Your task to perform on an android device: open app "Spotify: Music and Podcasts" Image 0: 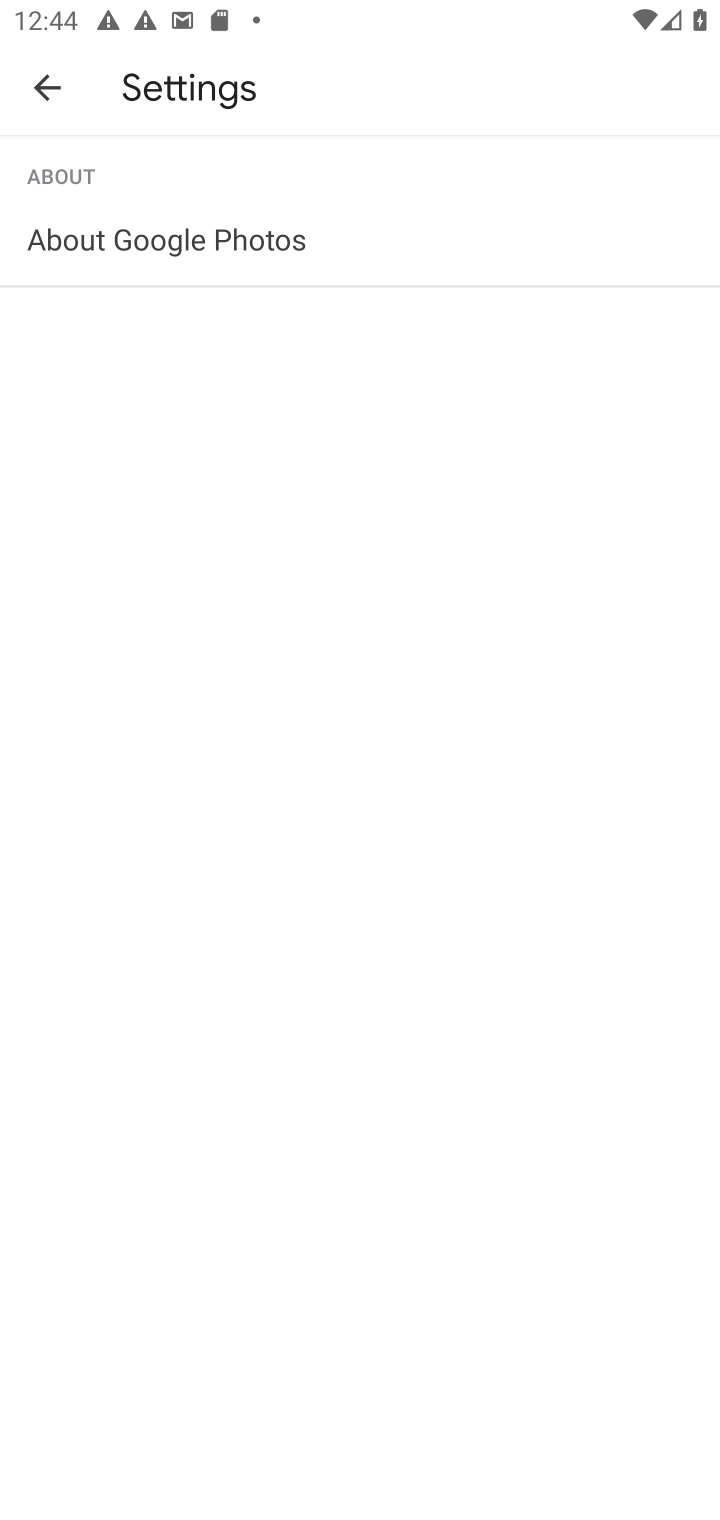
Step 0: press home button
Your task to perform on an android device: open app "Spotify: Music and Podcasts" Image 1: 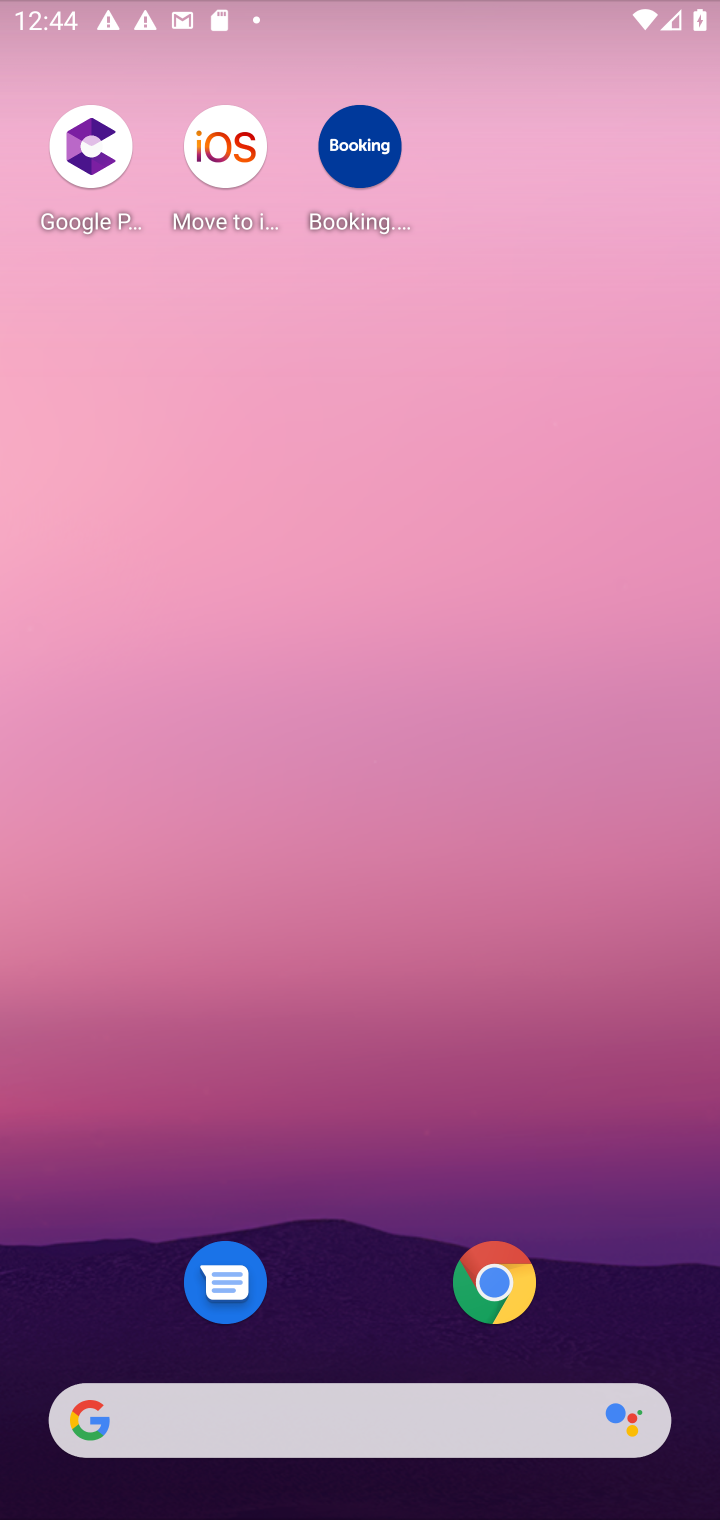
Step 1: drag from (409, 1327) to (356, 365)
Your task to perform on an android device: open app "Spotify: Music and Podcasts" Image 2: 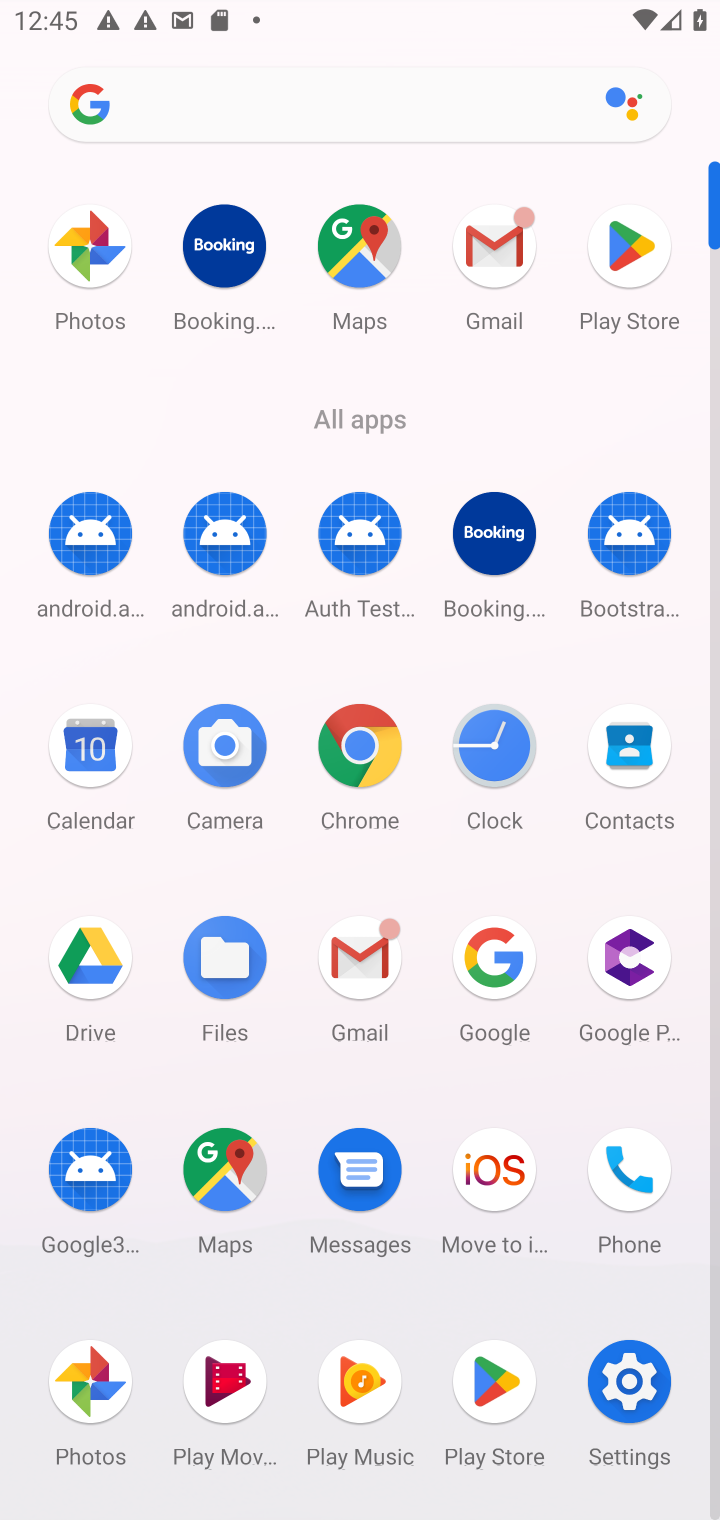
Step 2: click (637, 255)
Your task to perform on an android device: open app "Spotify: Music and Podcasts" Image 3: 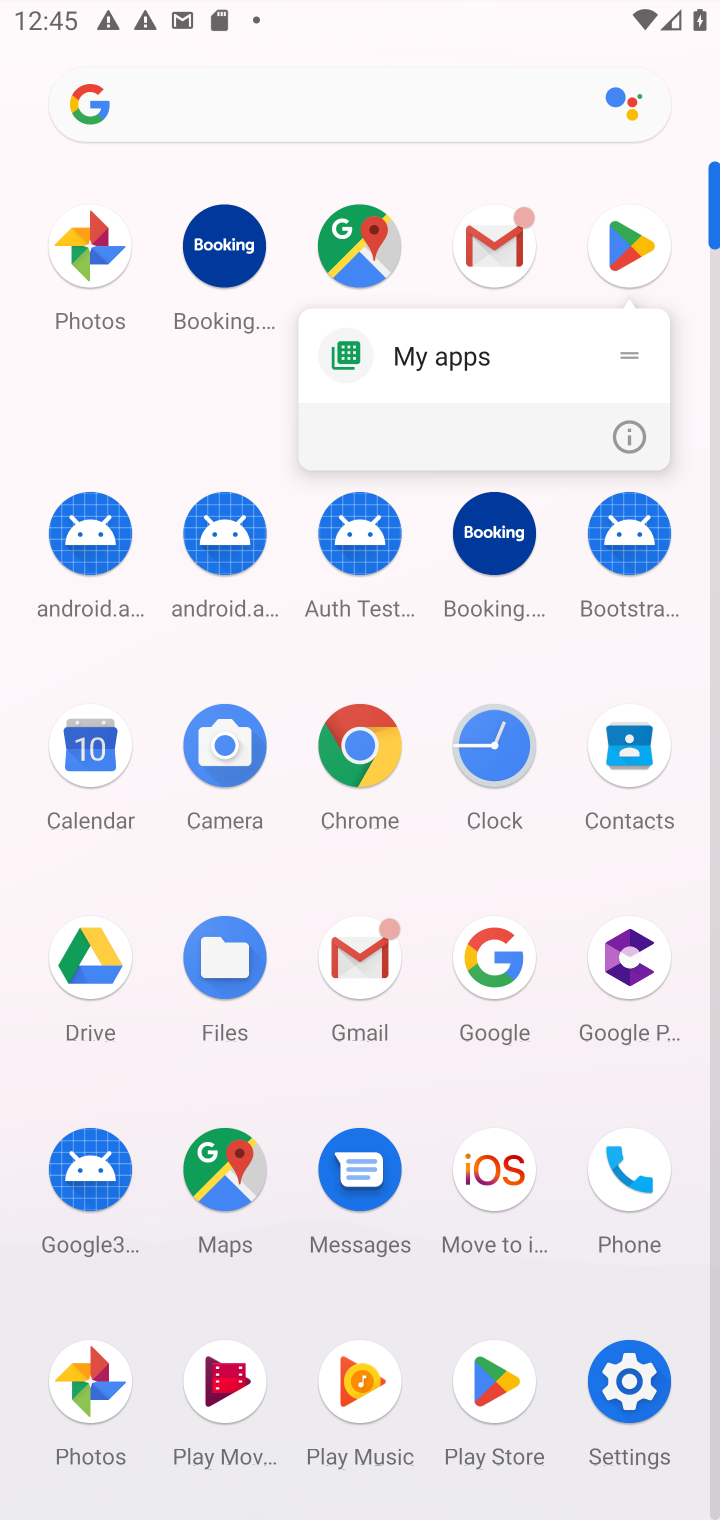
Step 3: click (637, 255)
Your task to perform on an android device: open app "Spotify: Music and Podcasts" Image 4: 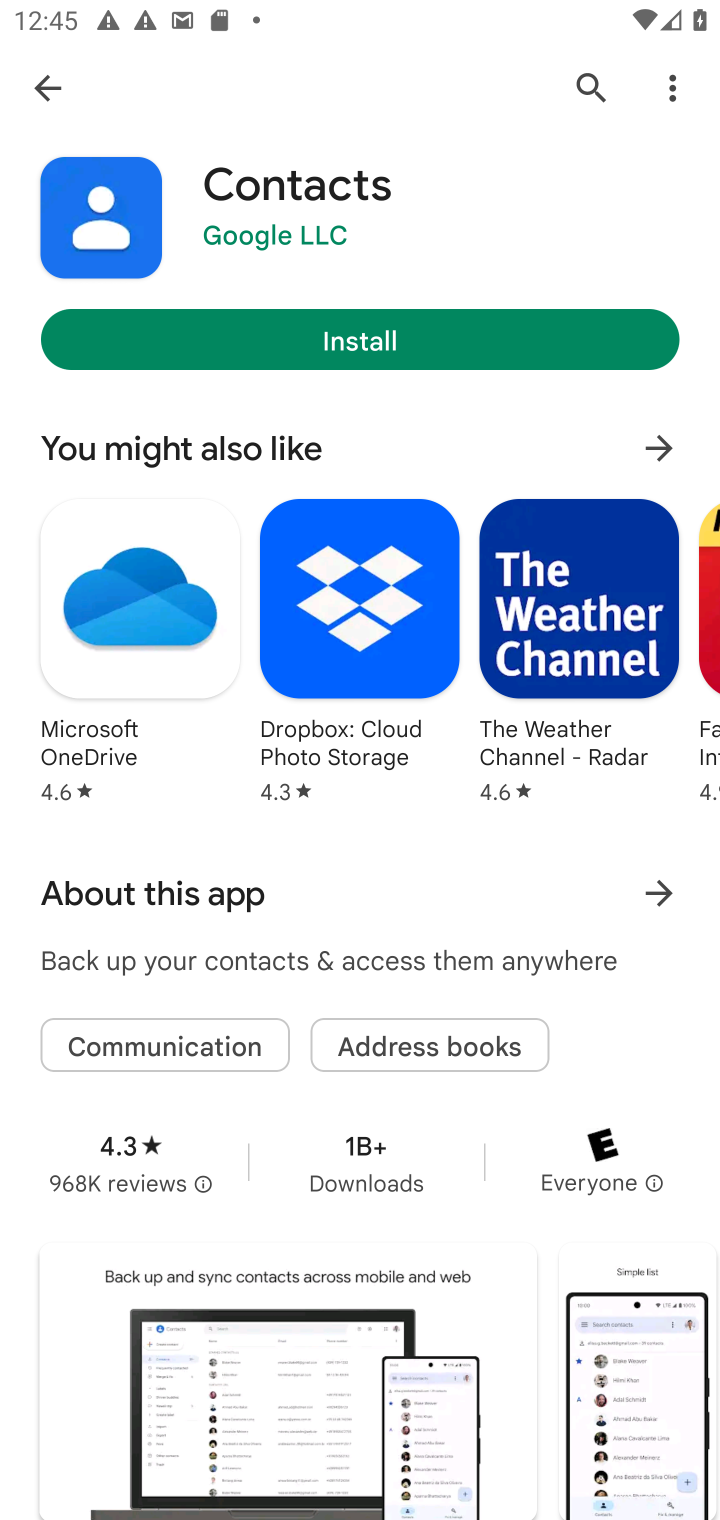
Step 4: click (22, 81)
Your task to perform on an android device: open app "Spotify: Music and Podcasts" Image 5: 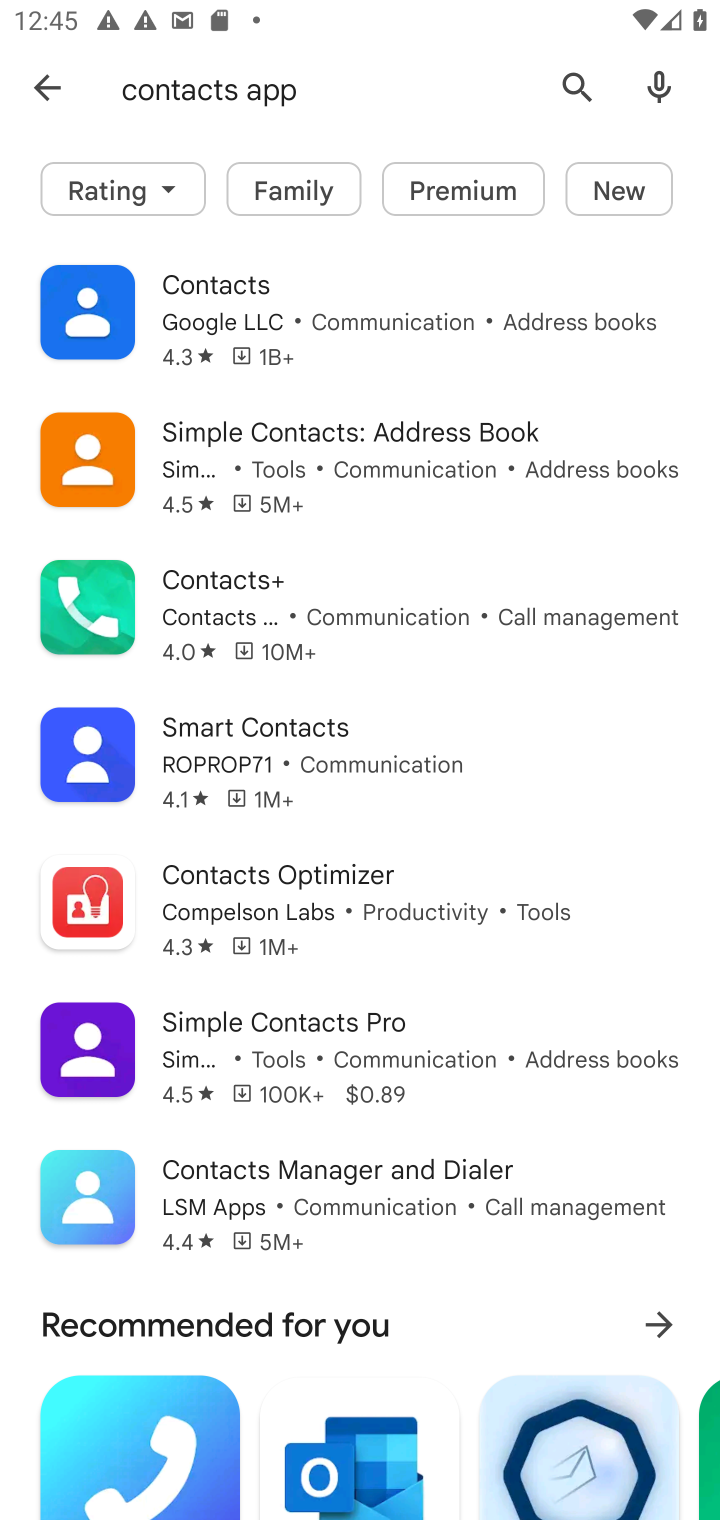
Step 5: click (65, 97)
Your task to perform on an android device: open app "Spotify: Music and Podcasts" Image 6: 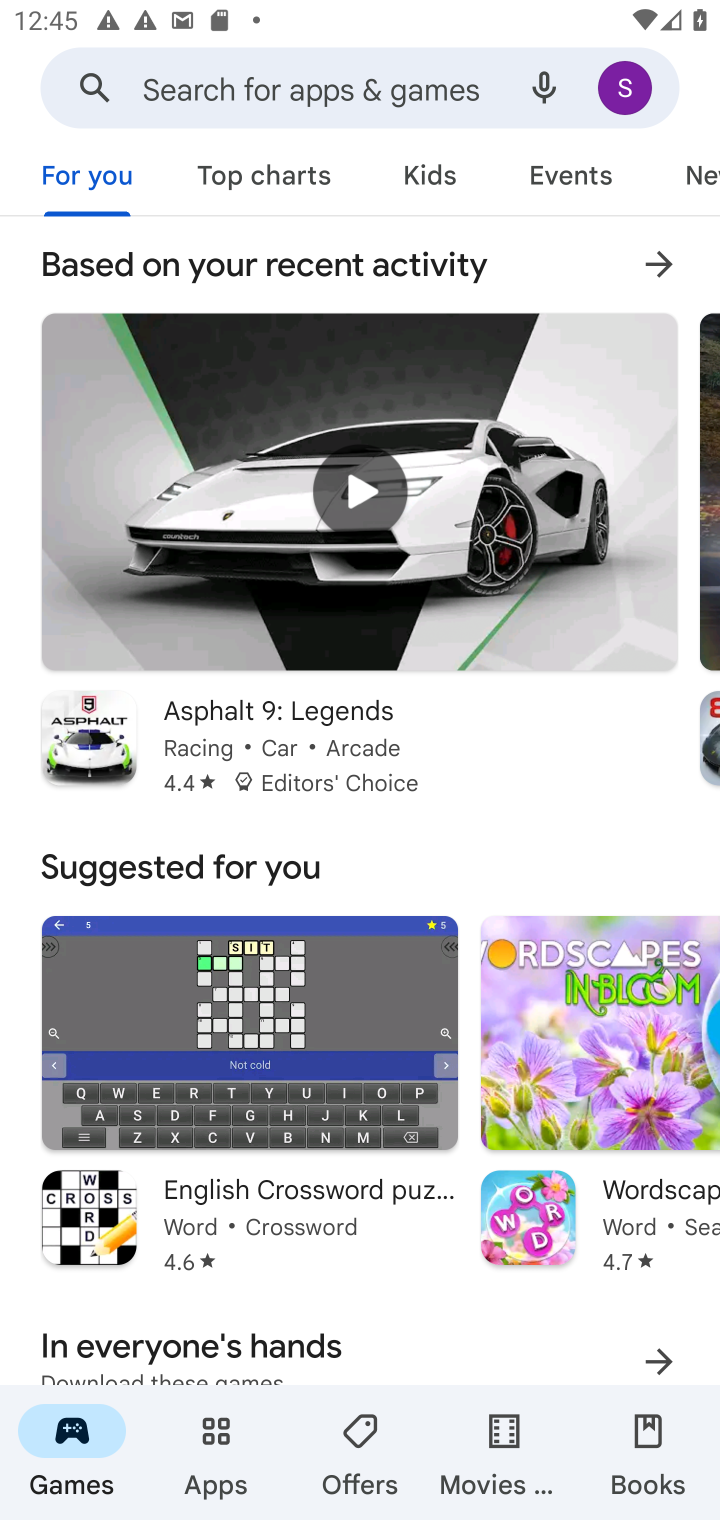
Step 6: click (346, 76)
Your task to perform on an android device: open app "Spotify: Music and Podcasts" Image 7: 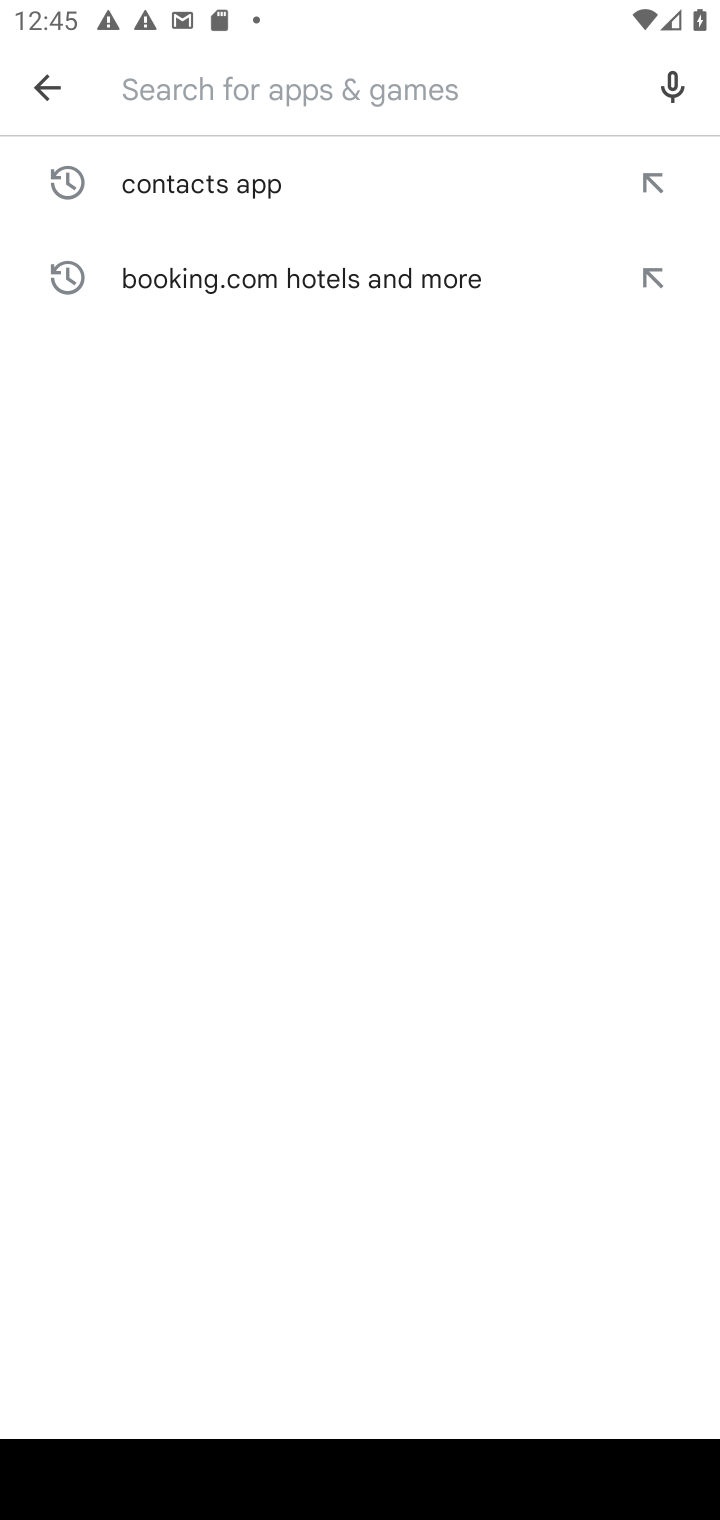
Step 7: type "spotify "
Your task to perform on an android device: open app "Spotify: Music and Podcasts" Image 8: 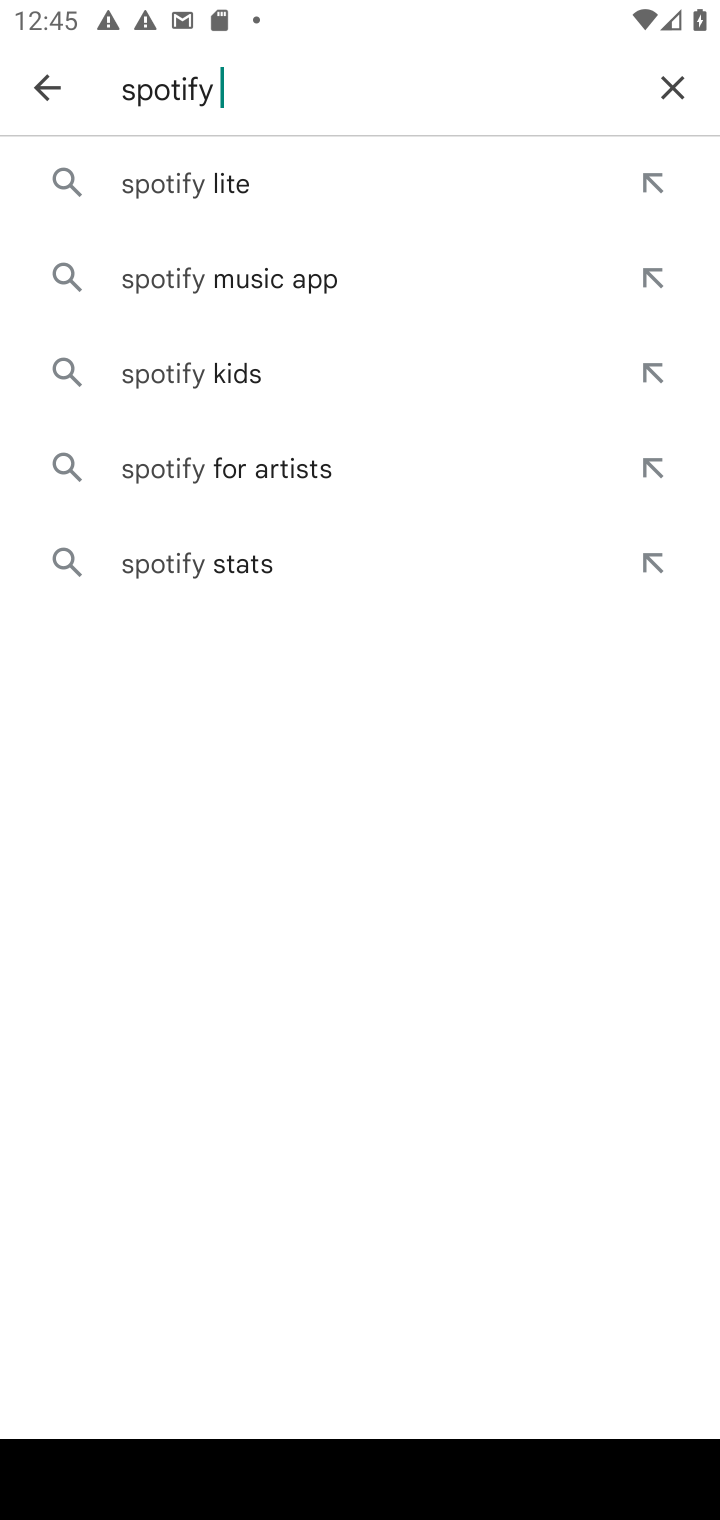
Step 8: click (299, 179)
Your task to perform on an android device: open app "Spotify: Music and Podcasts" Image 9: 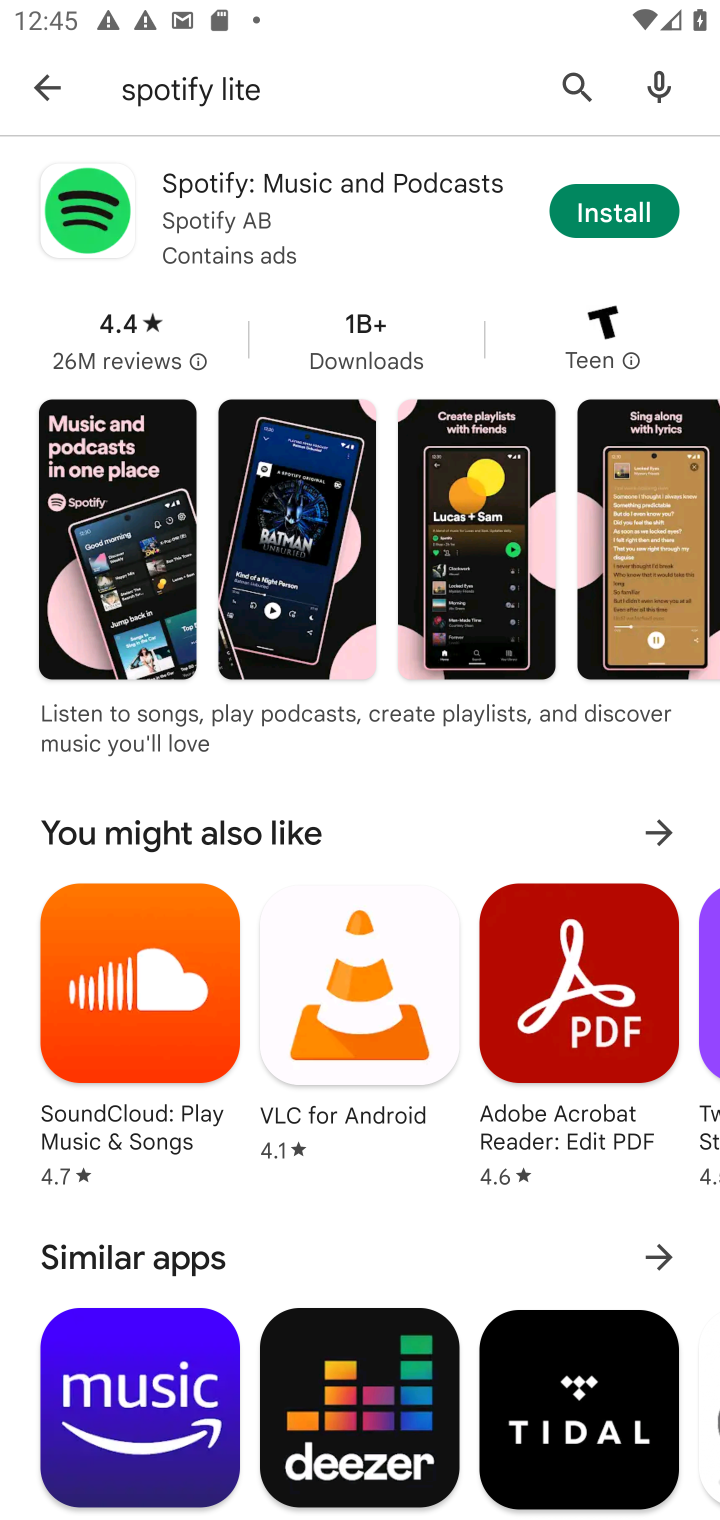
Step 9: click (635, 199)
Your task to perform on an android device: open app "Spotify: Music and Podcasts" Image 10: 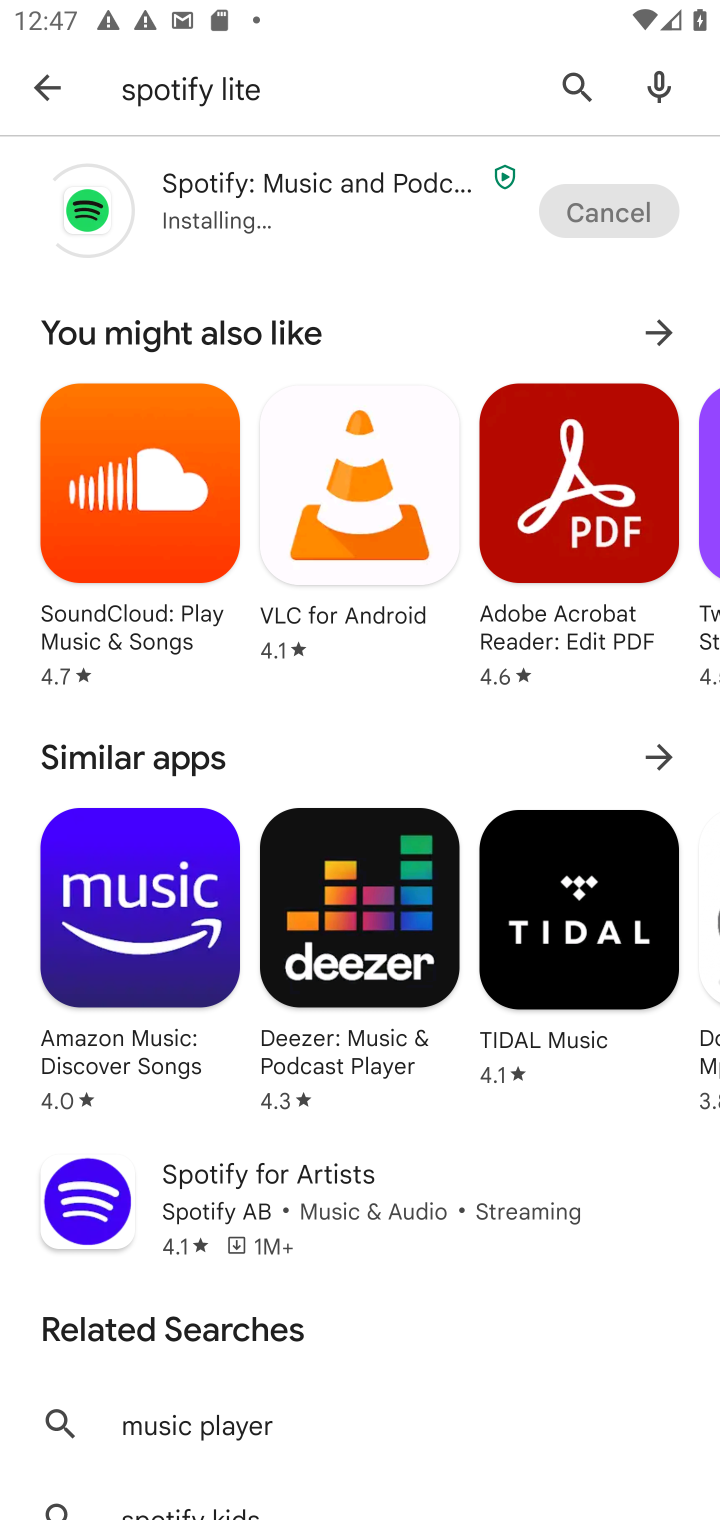
Step 10: task complete